Your task to perform on an android device: Go to Reddit.com Image 0: 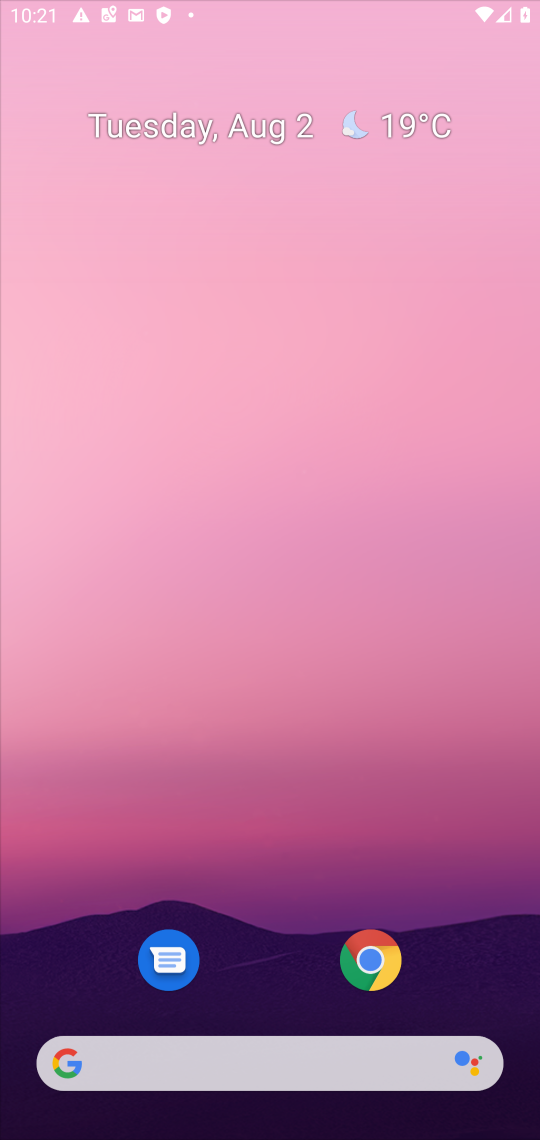
Step 0: drag from (297, 939) to (354, 234)
Your task to perform on an android device: Go to Reddit.com Image 1: 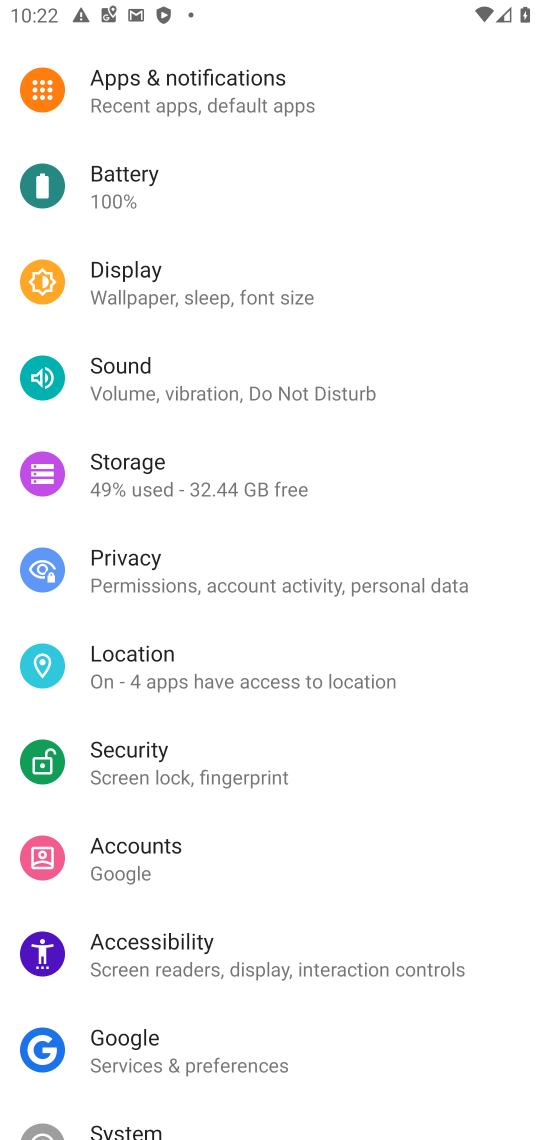
Step 1: press home button
Your task to perform on an android device: Go to Reddit.com Image 2: 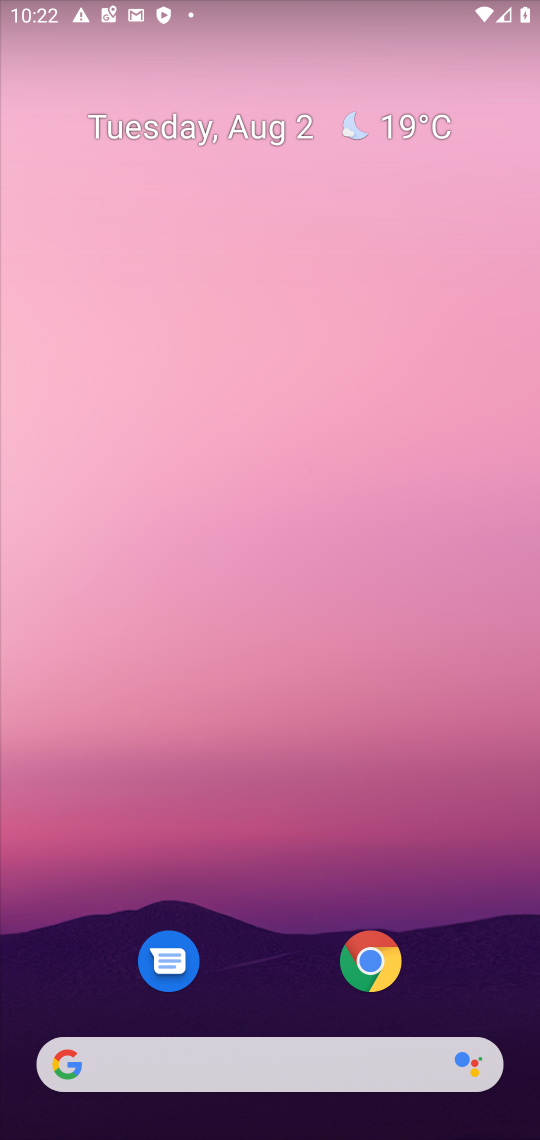
Step 2: click (371, 945)
Your task to perform on an android device: Go to Reddit.com Image 3: 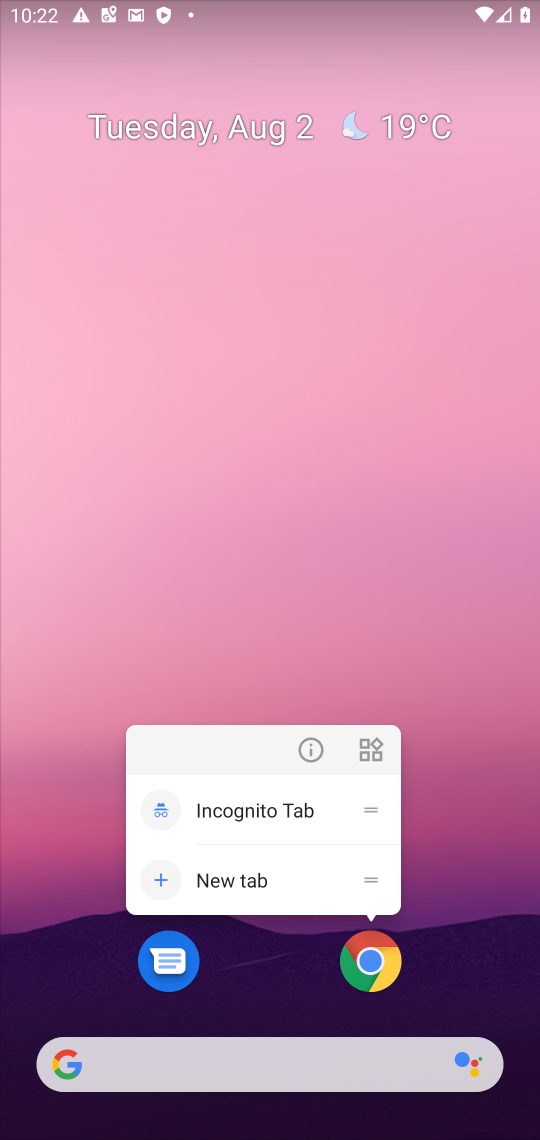
Step 3: click (371, 945)
Your task to perform on an android device: Go to Reddit.com Image 4: 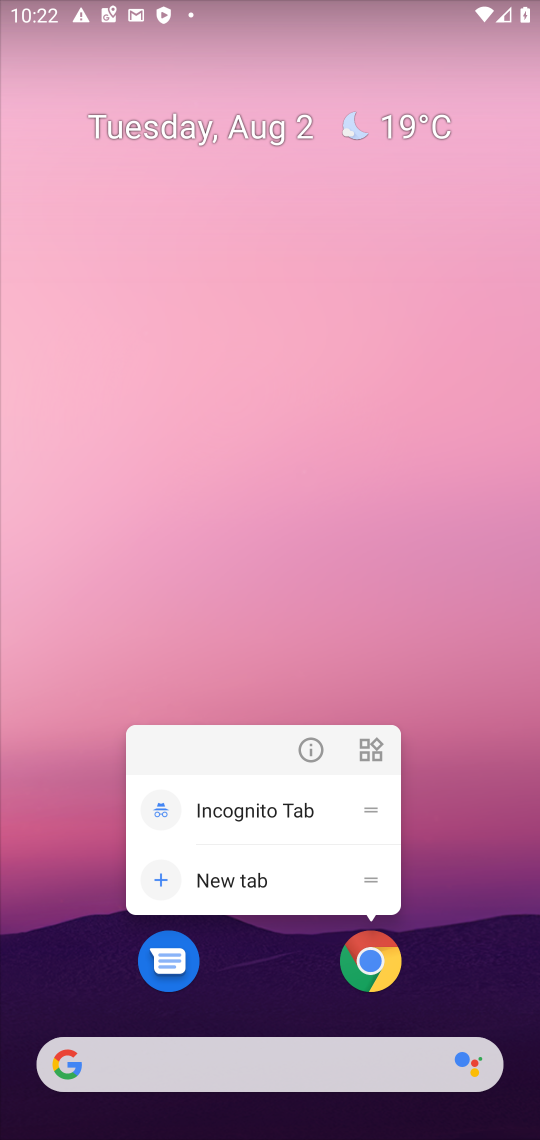
Step 4: click (371, 945)
Your task to perform on an android device: Go to Reddit.com Image 5: 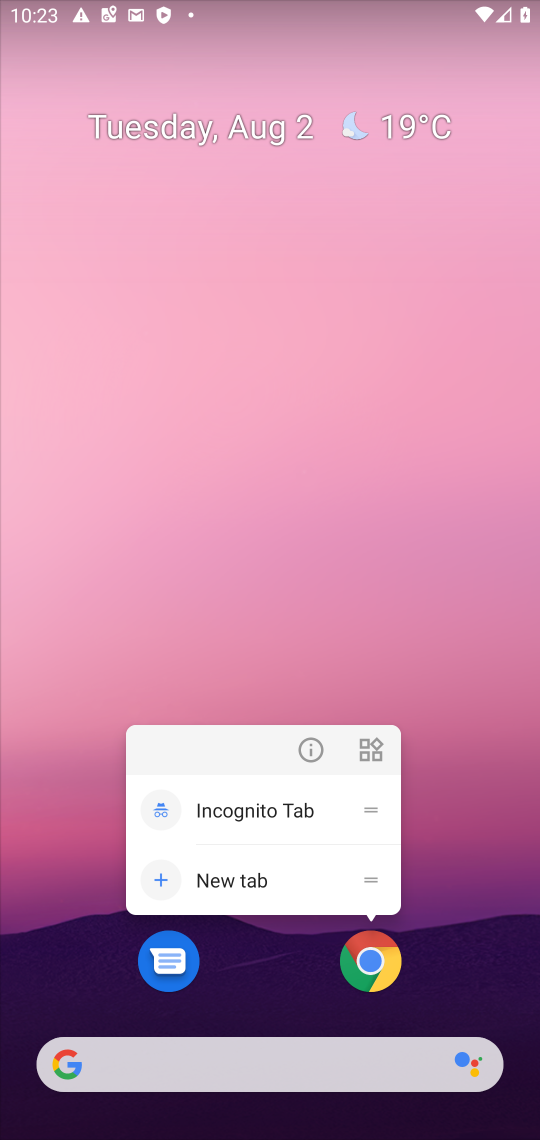
Step 5: click (472, 739)
Your task to perform on an android device: Go to Reddit.com Image 6: 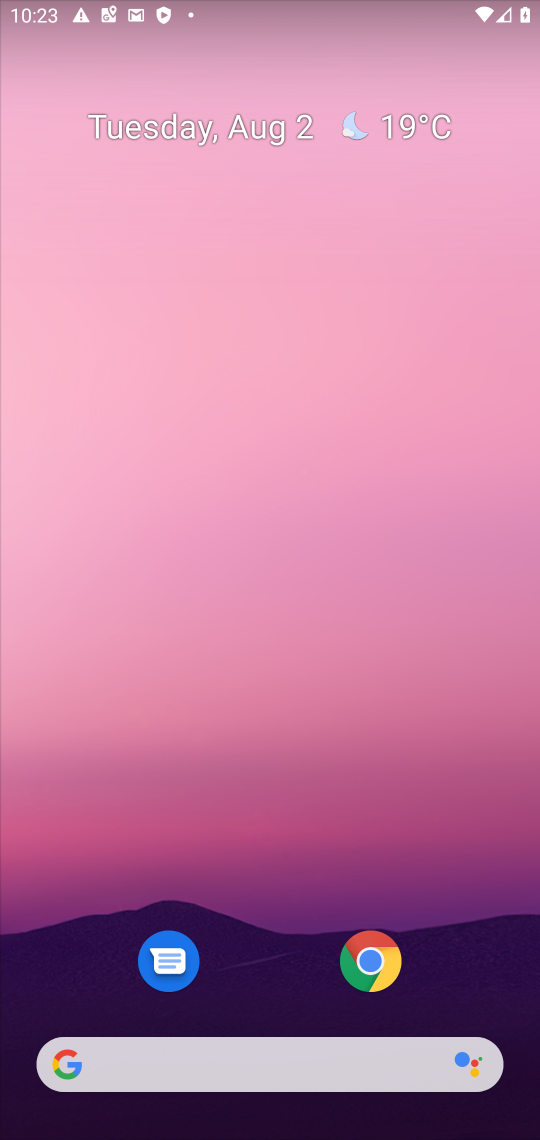
Step 6: click (356, 996)
Your task to perform on an android device: Go to Reddit.com Image 7: 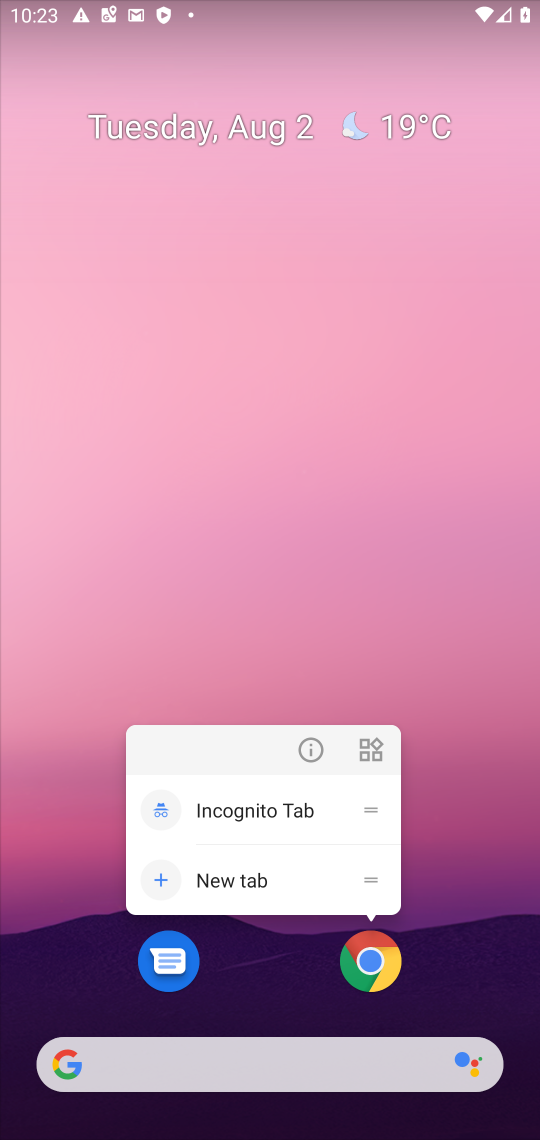
Step 7: click (356, 996)
Your task to perform on an android device: Go to Reddit.com Image 8: 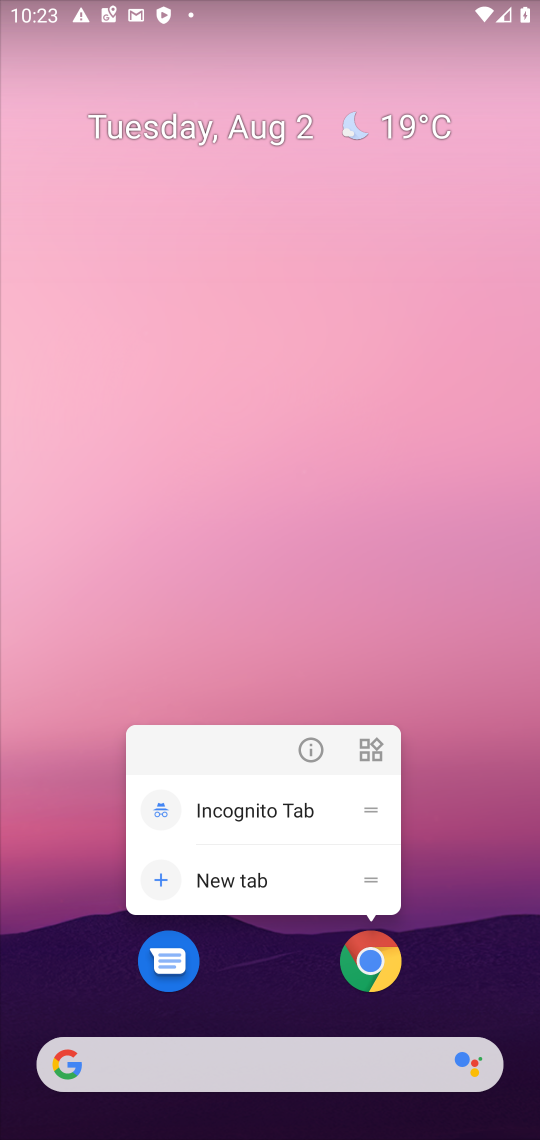
Step 8: click (356, 996)
Your task to perform on an android device: Go to Reddit.com Image 9: 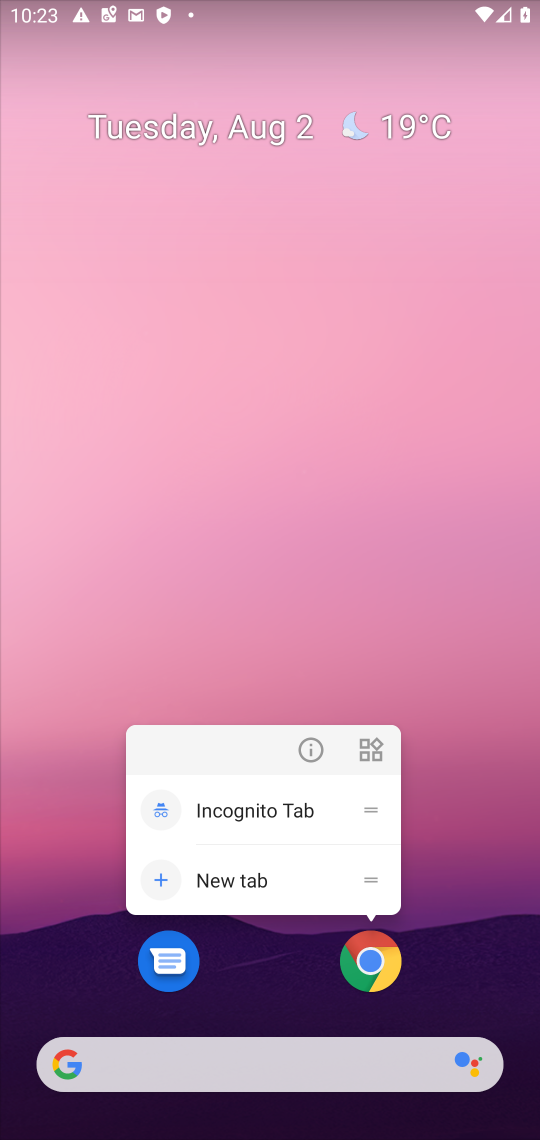
Step 9: click (368, 982)
Your task to perform on an android device: Go to Reddit.com Image 10: 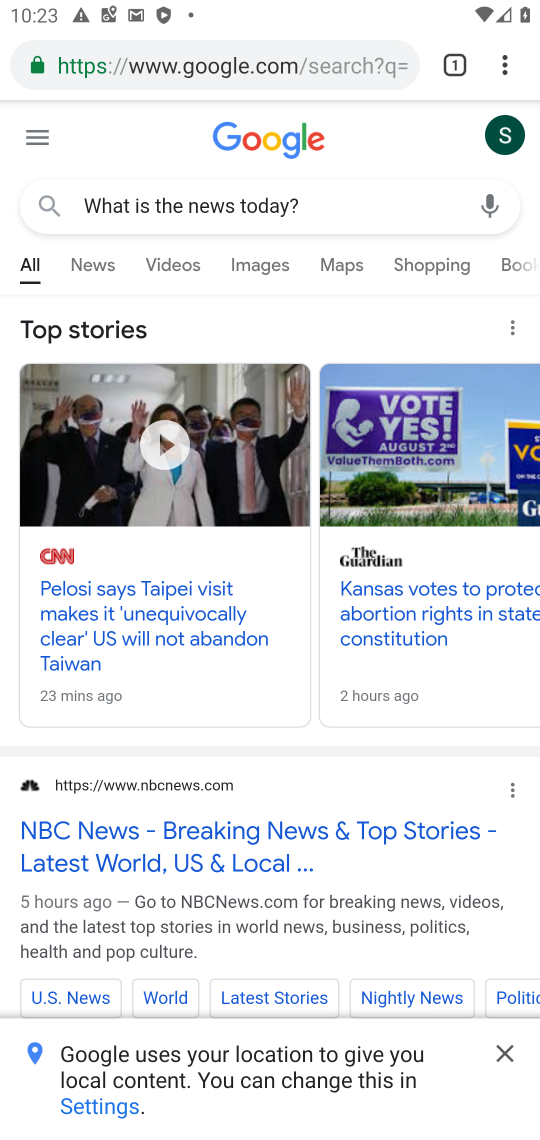
Step 10: click (336, 72)
Your task to perform on an android device: Go to Reddit.com Image 11: 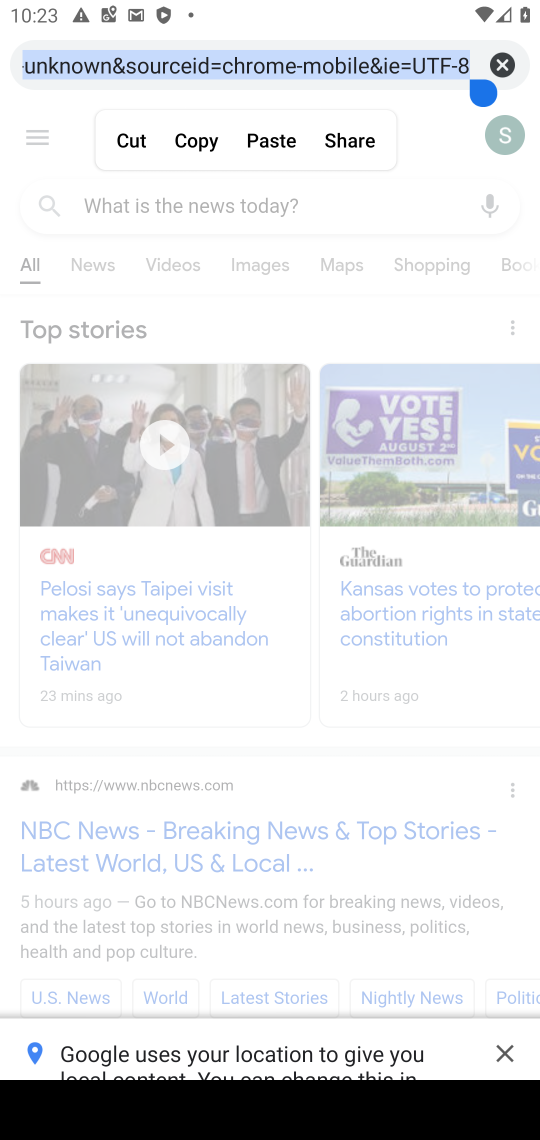
Step 11: type "Reddit.com"
Your task to perform on an android device: Go to Reddit.com Image 12: 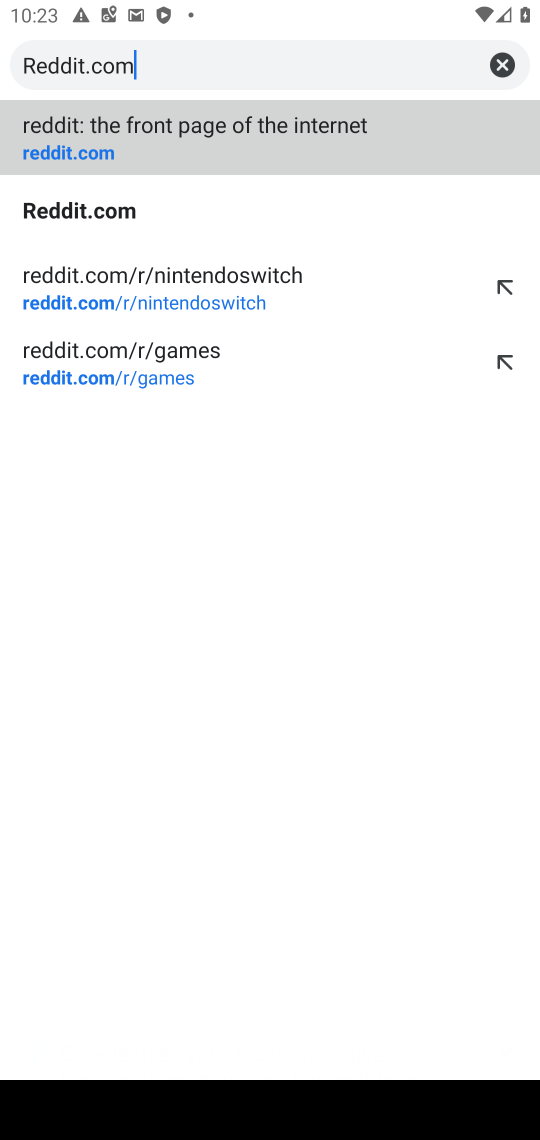
Step 12: type ""
Your task to perform on an android device: Go to Reddit.com Image 13: 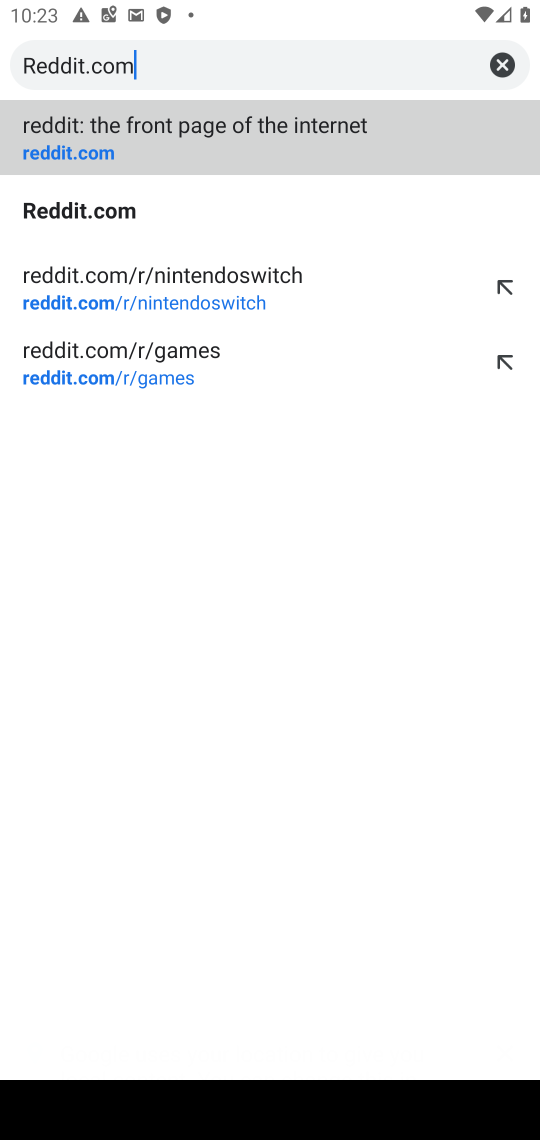
Step 13: click (90, 134)
Your task to perform on an android device: Go to Reddit.com Image 14: 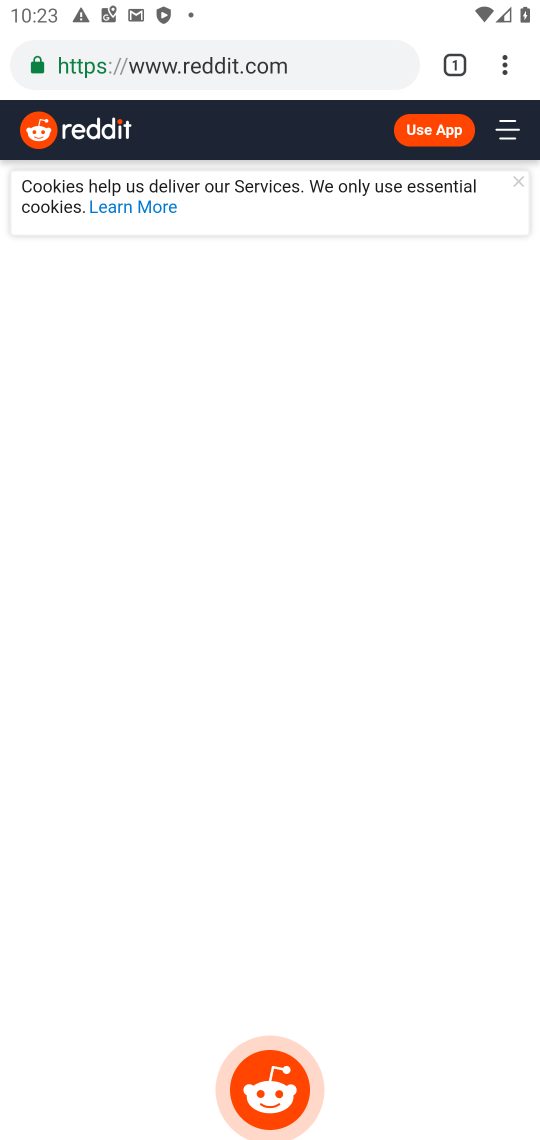
Step 14: task complete